Your task to perform on an android device: add a label to a message in the gmail app Image 0: 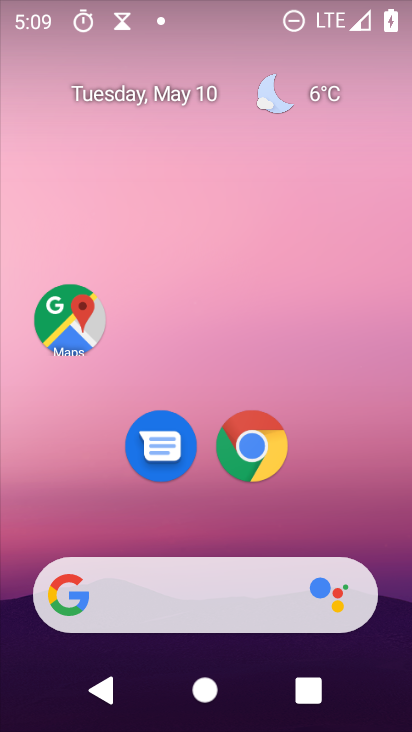
Step 0: drag from (241, 499) to (173, 34)
Your task to perform on an android device: add a label to a message in the gmail app Image 1: 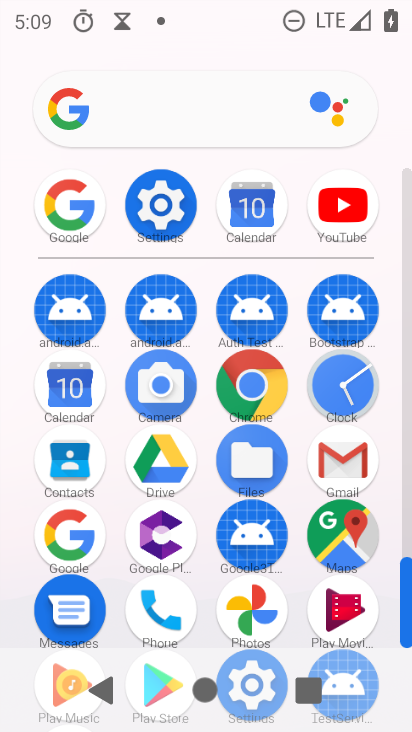
Step 1: click (339, 462)
Your task to perform on an android device: add a label to a message in the gmail app Image 2: 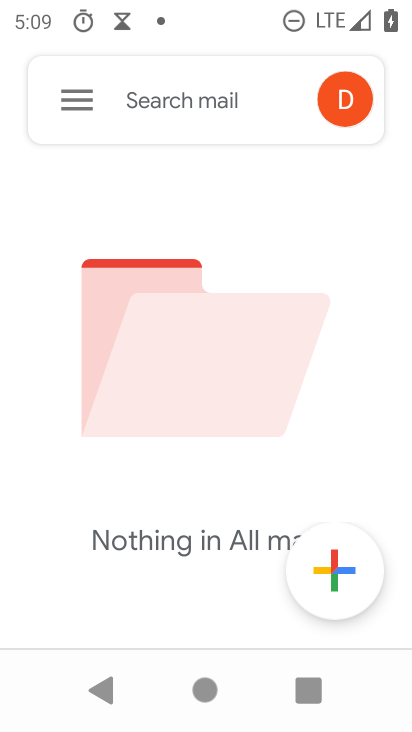
Step 2: click (79, 100)
Your task to perform on an android device: add a label to a message in the gmail app Image 3: 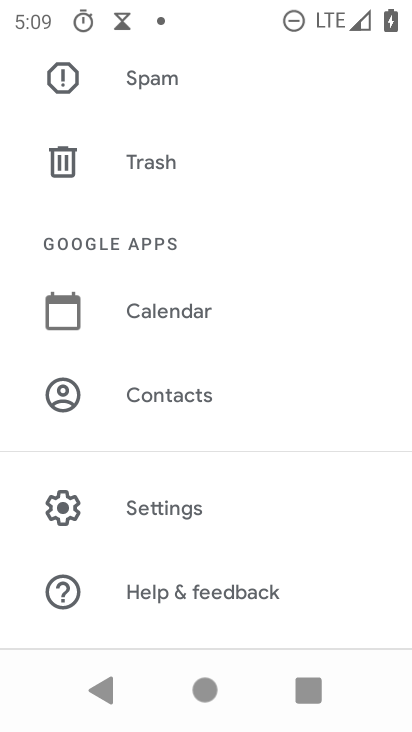
Step 3: drag from (211, 132) to (211, 414)
Your task to perform on an android device: add a label to a message in the gmail app Image 4: 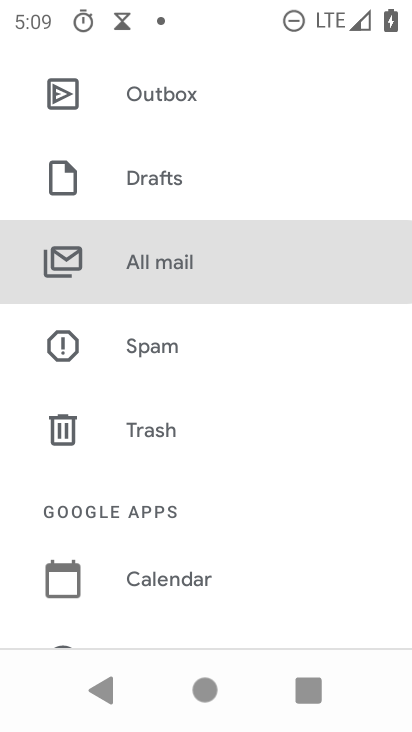
Step 4: click (210, 266)
Your task to perform on an android device: add a label to a message in the gmail app Image 5: 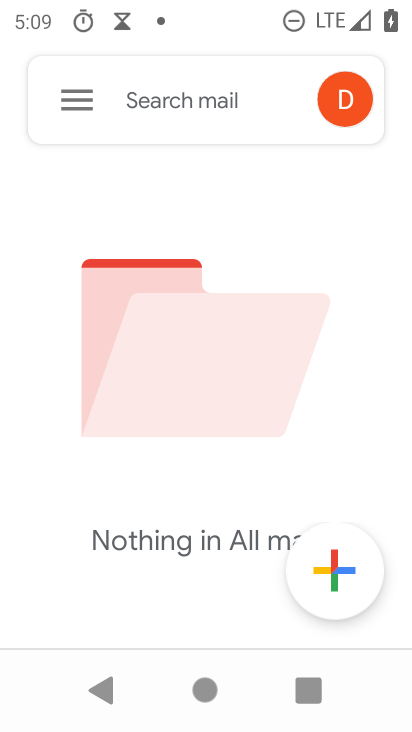
Step 5: task complete